Your task to perform on an android device: Go to Google Image 0: 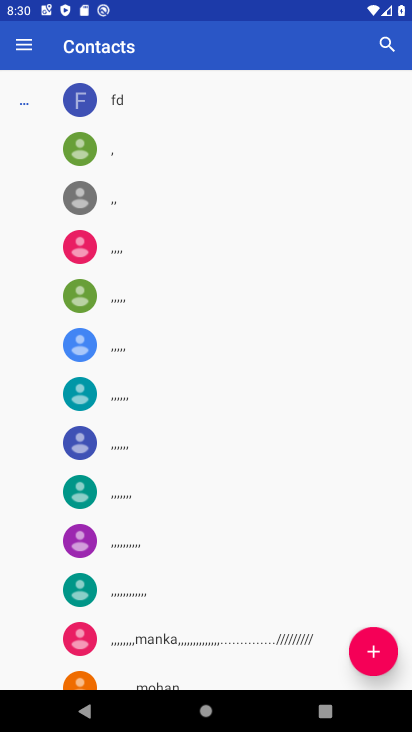
Step 0: press home button
Your task to perform on an android device: Go to Google Image 1: 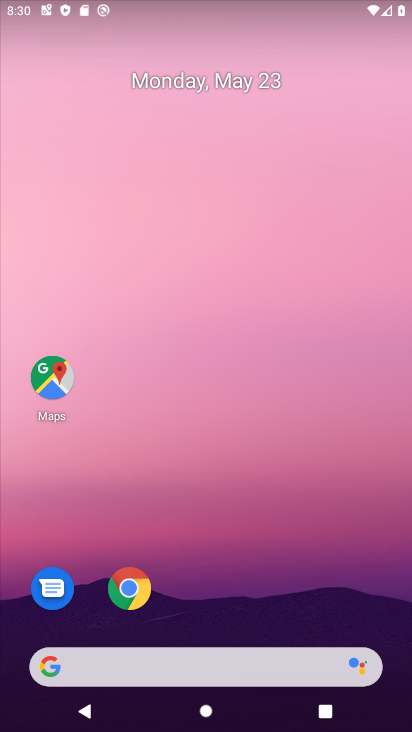
Step 1: drag from (380, 610) to (338, 256)
Your task to perform on an android device: Go to Google Image 2: 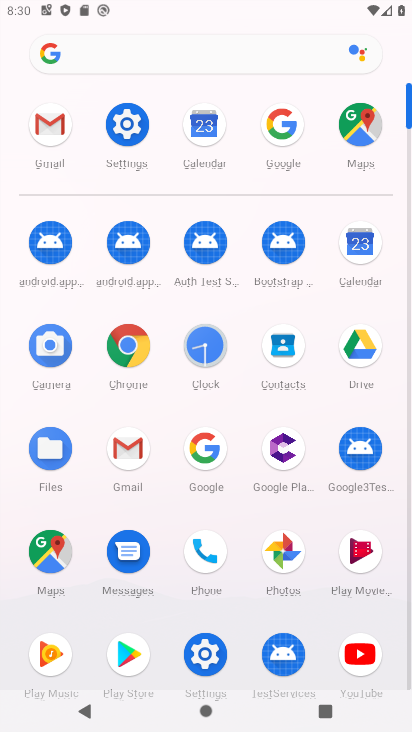
Step 2: click (197, 455)
Your task to perform on an android device: Go to Google Image 3: 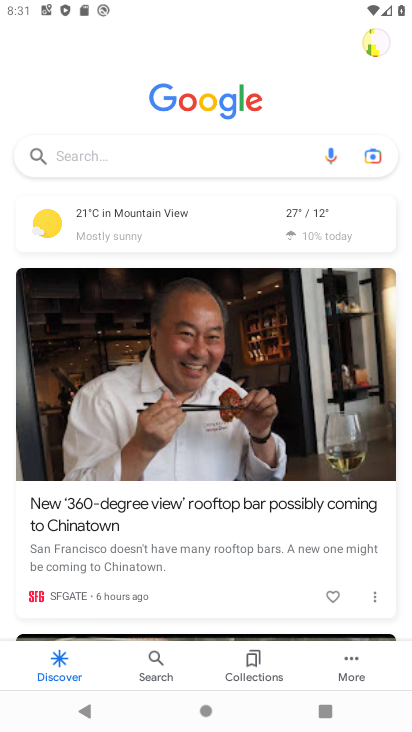
Step 3: task complete